Your task to perform on an android device: Go to display settings Image 0: 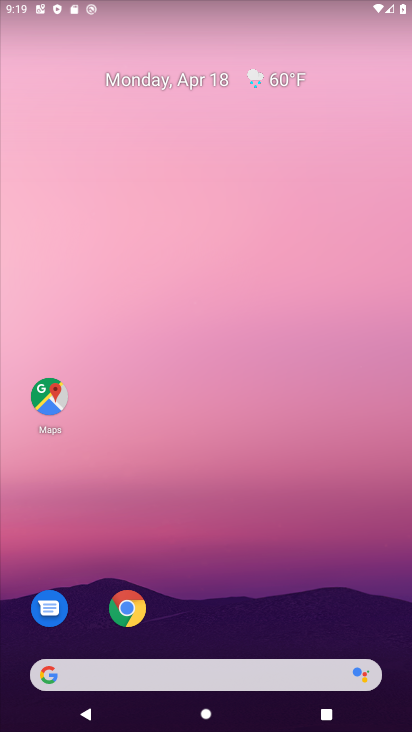
Step 0: click (267, 439)
Your task to perform on an android device: Go to display settings Image 1: 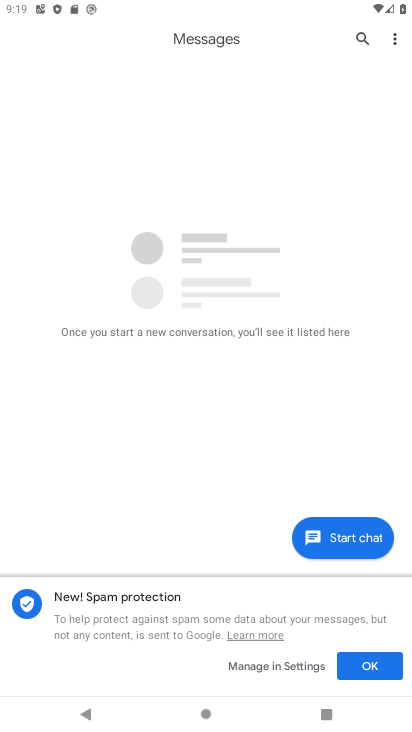
Step 1: drag from (193, 599) to (238, 296)
Your task to perform on an android device: Go to display settings Image 2: 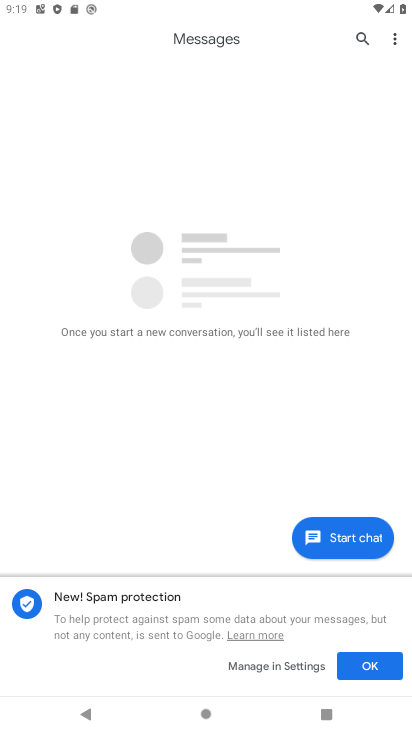
Step 2: drag from (138, 474) to (209, 249)
Your task to perform on an android device: Go to display settings Image 3: 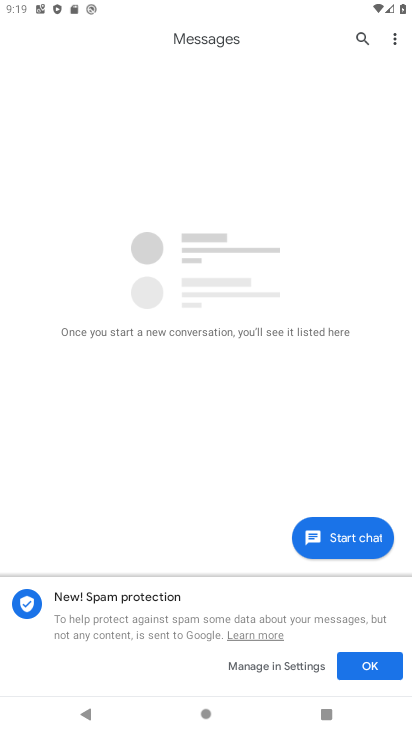
Step 3: press home button
Your task to perform on an android device: Go to display settings Image 4: 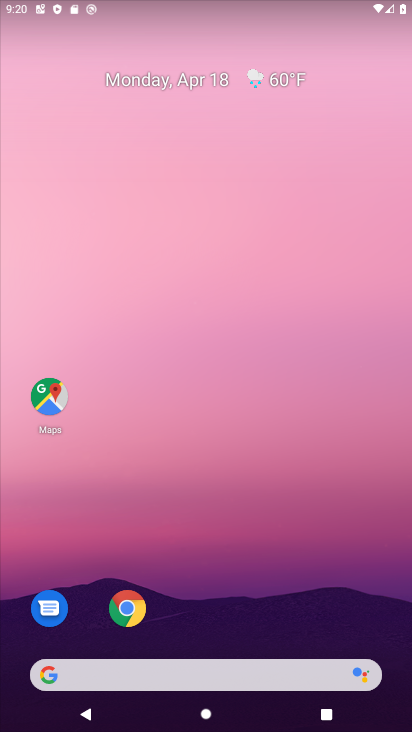
Step 4: click (260, 605)
Your task to perform on an android device: Go to display settings Image 5: 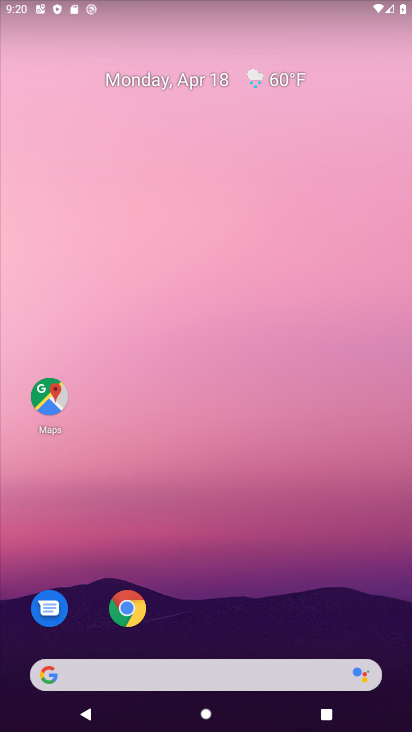
Step 5: drag from (279, 643) to (291, 684)
Your task to perform on an android device: Go to display settings Image 6: 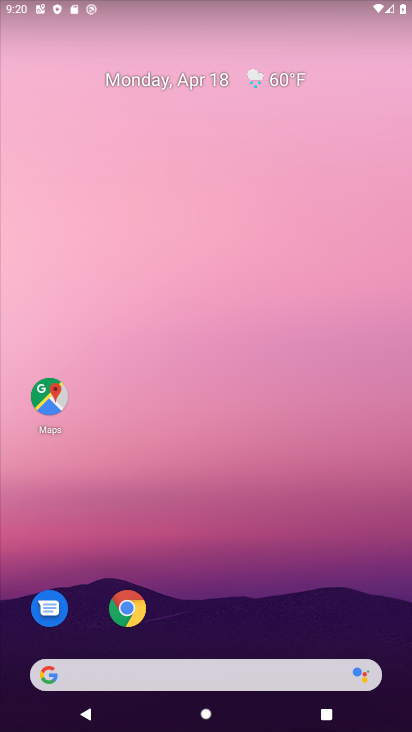
Step 6: drag from (197, 609) to (328, 18)
Your task to perform on an android device: Go to display settings Image 7: 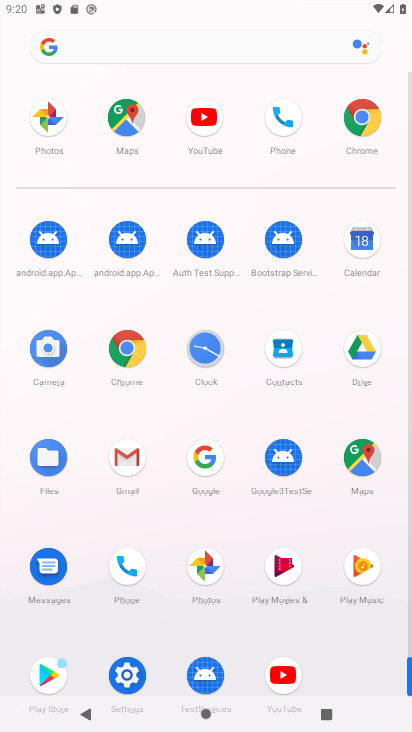
Step 7: click (133, 674)
Your task to perform on an android device: Go to display settings Image 8: 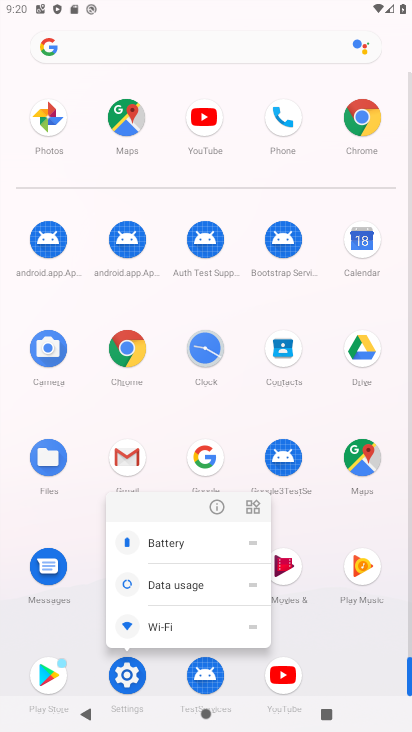
Step 8: click (218, 500)
Your task to perform on an android device: Go to display settings Image 9: 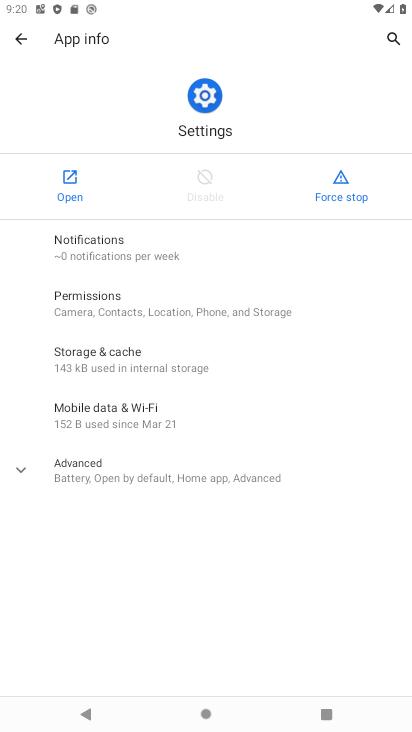
Step 9: click (73, 179)
Your task to perform on an android device: Go to display settings Image 10: 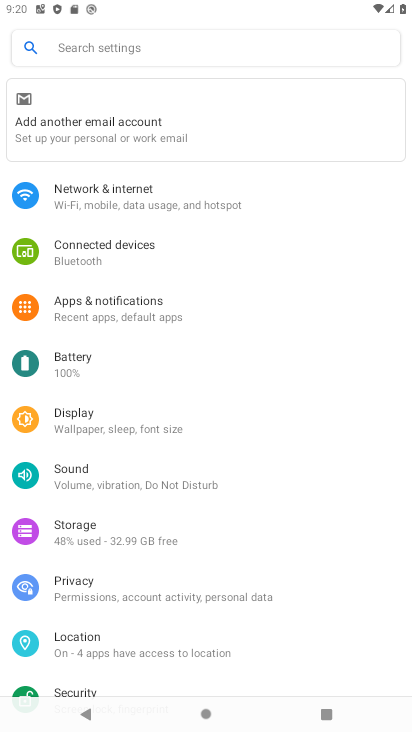
Step 10: click (143, 425)
Your task to perform on an android device: Go to display settings Image 11: 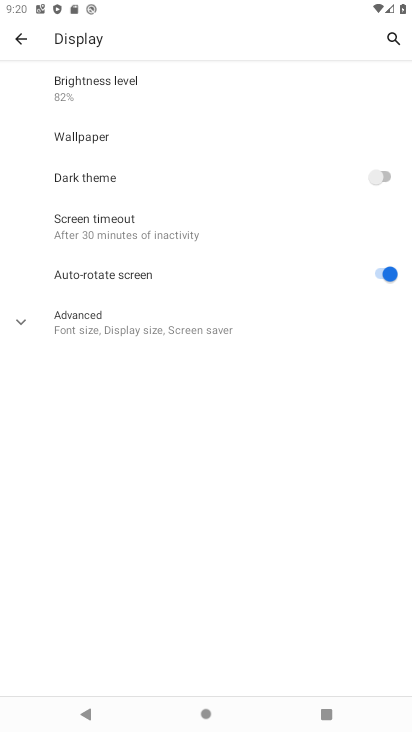
Step 11: task complete